Your task to perform on an android device: turn off location Image 0: 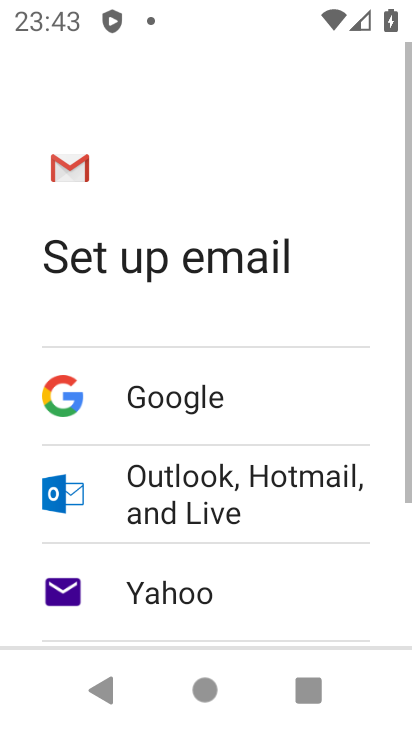
Step 0: press back button
Your task to perform on an android device: turn off location Image 1: 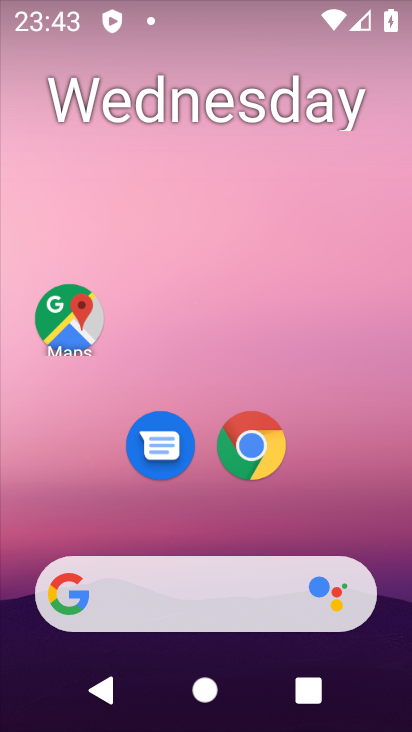
Step 1: drag from (230, 433) to (249, 99)
Your task to perform on an android device: turn off location Image 2: 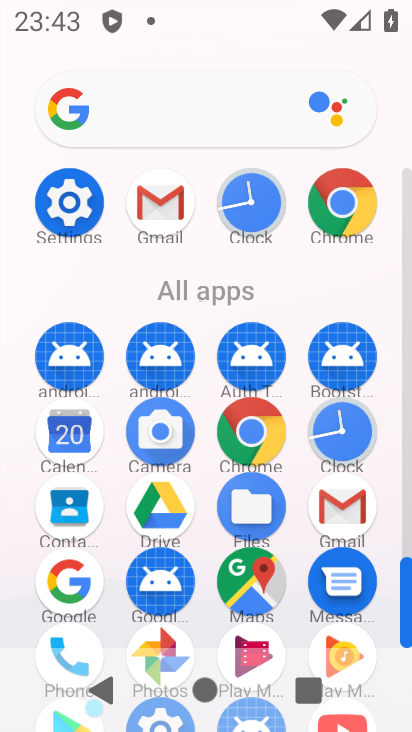
Step 2: click (71, 206)
Your task to perform on an android device: turn off location Image 3: 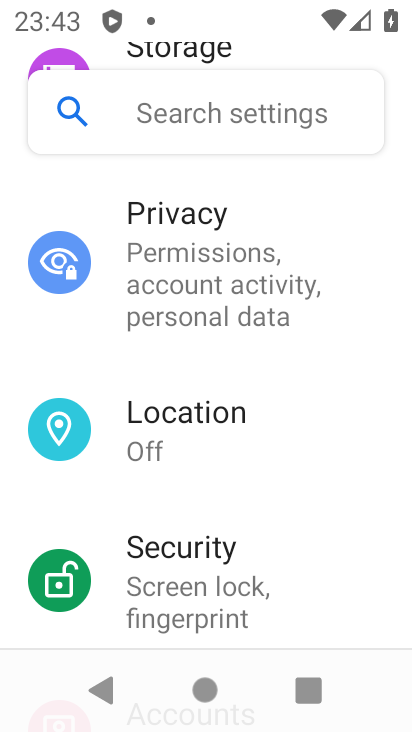
Step 3: click (173, 432)
Your task to perform on an android device: turn off location Image 4: 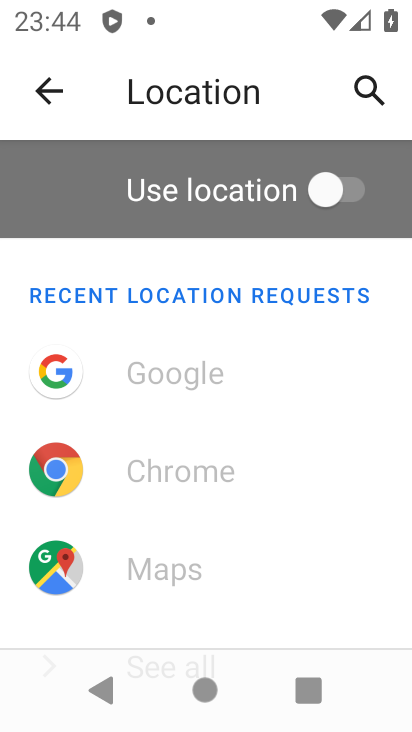
Step 4: task complete